Your task to perform on an android device: What's the weather today? Image 0: 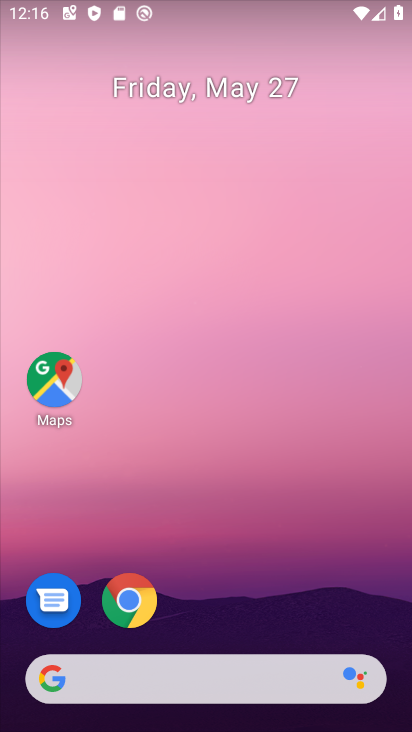
Step 0: drag from (232, 559) to (170, 76)
Your task to perform on an android device: What's the weather today? Image 1: 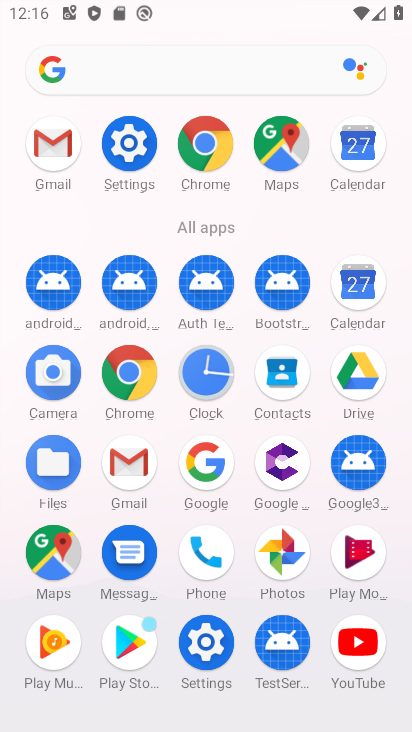
Step 1: drag from (5, 565) to (22, 229)
Your task to perform on an android device: What's the weather today? Image 2: 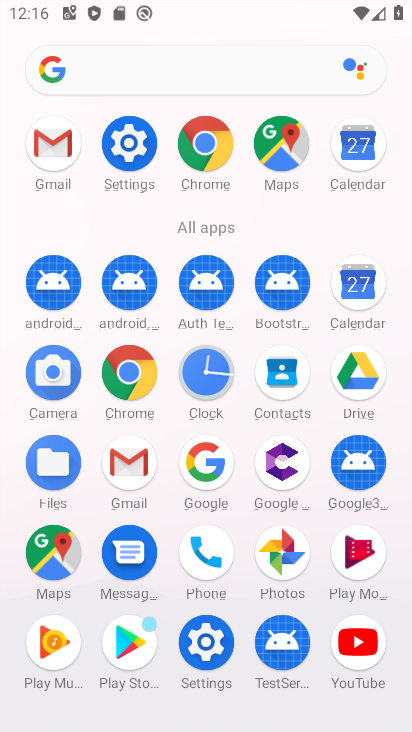
Step 2: click (203, 137)
Your task to perform on an android device: What's the weather today? Image 3: 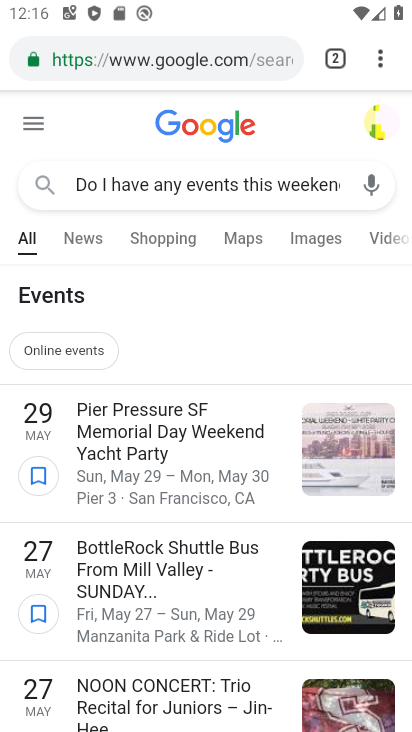
Step 3: click (202, 51)
Your task to perform on an android device: What's the weather today? Image 4: 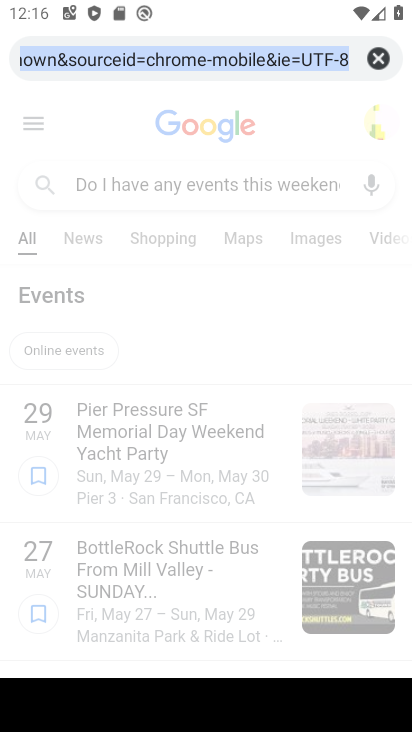
Step 4: click (374, 59)
Your task to perform on an android device: What's the weather today? Image 5: 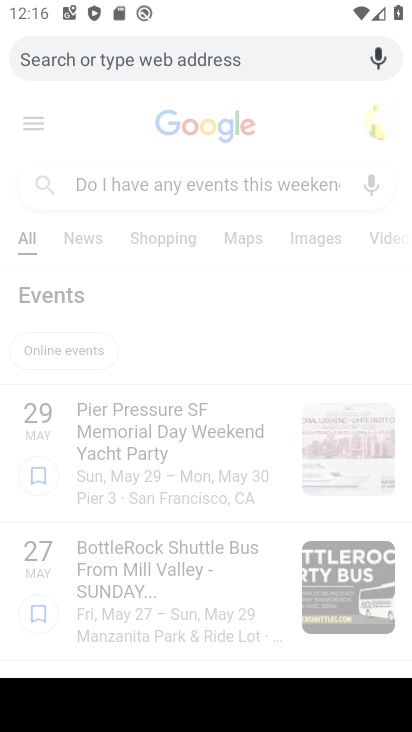
Step 5: type "What's the weather today?"
Your task to perform on an android device: What's the weather today? Image 6: 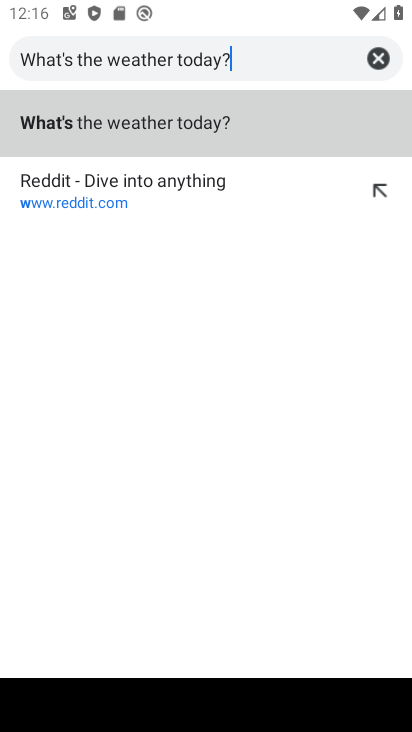
Step 6: type ""
Your task to perform on an android device: What's the weather today? Image 7: 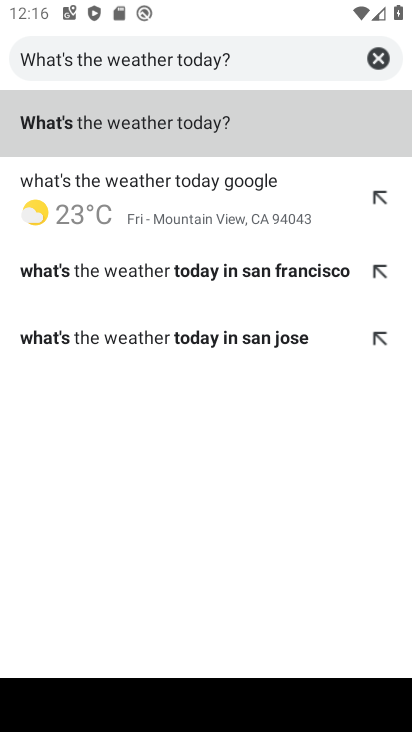
Step 7: click (177, 206)
Your task to perform on an android device: What's the weather today? Image 8: 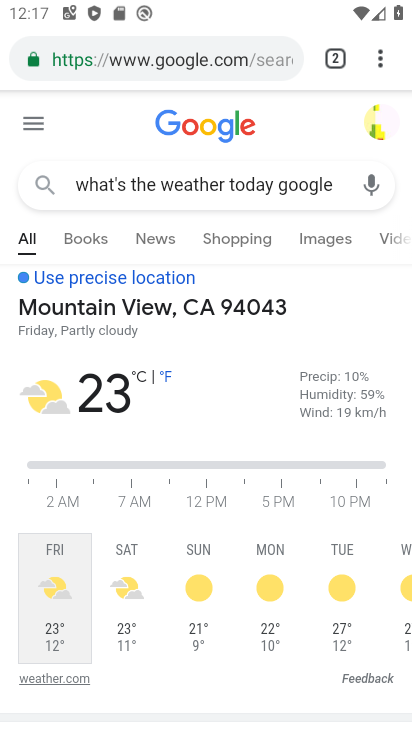
Step 8: task complete